Your task to perform on an android device: open a bookmark in the chrome app Image 0: 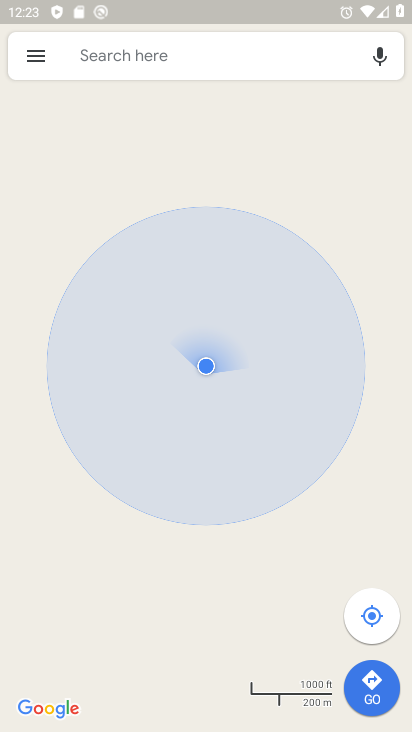
Step 0: press home button
Your task to perform on an android device: open a bookmark in the chrome app Image 1: 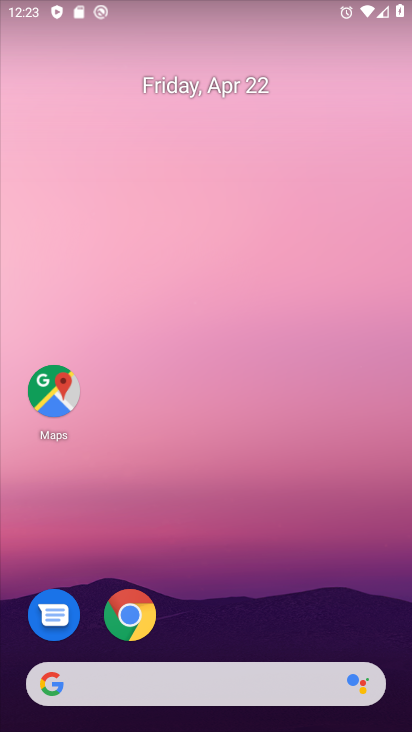
Step 1: click (129, 610)
Your task to perform on an android device: open a bookmark in the chrome app Image 2: 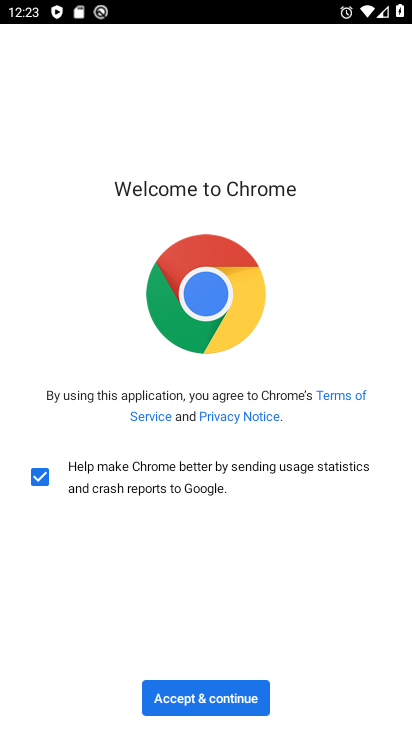
Step 2: click (218, 708)
Your task to perform on an android device: open a bookmark in the chrome app Image 3: 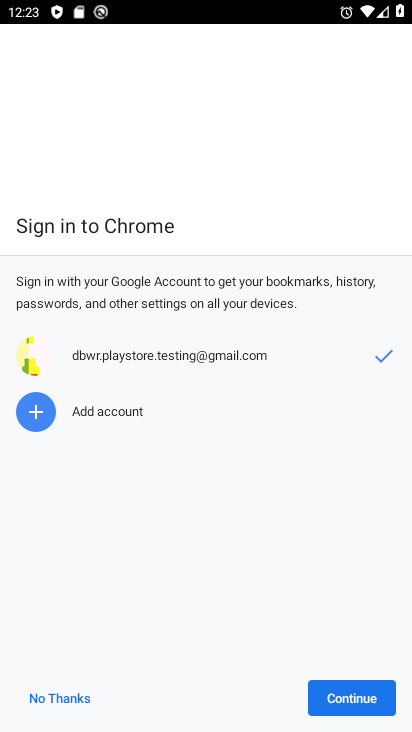
Step 3: click (350, 691)
Your task to perform on an android device: open a bookmark in the chrome app Image 4: 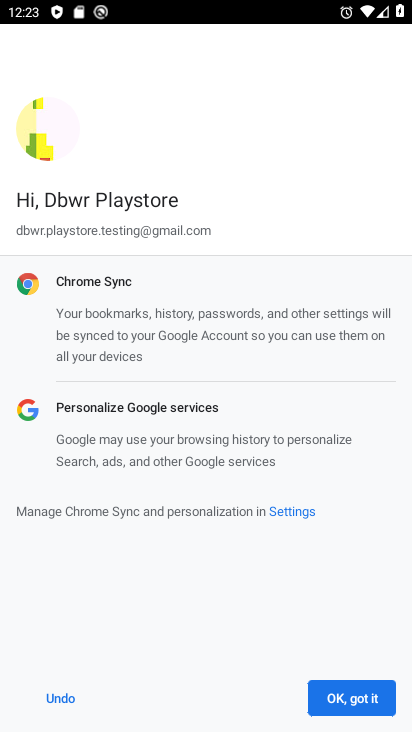
Step 4: click (339, 683)
Your task to perform on an android device: open a bookmark in the chrome app Image 5: 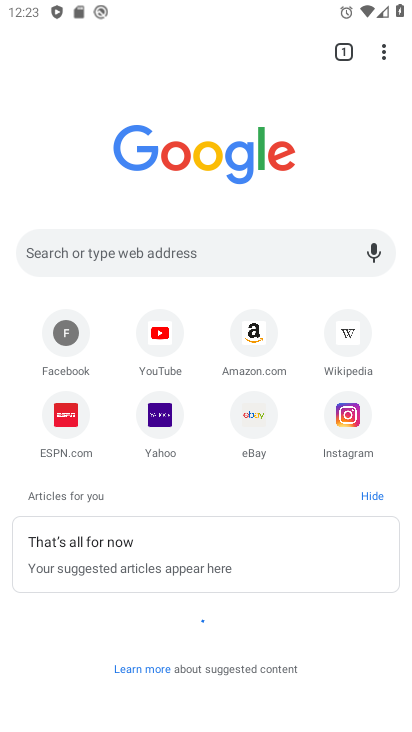
Step 5: click (383, 53)
Your task to perform on an android device: open a bookmark in the chrome app Image 6: 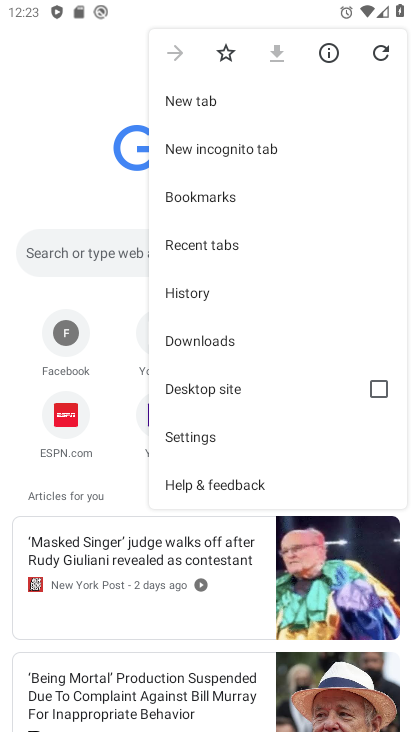
Step 6: click (257, 198)
Your task to perform on an android device: open a bookmark in the chrome app Image 7: 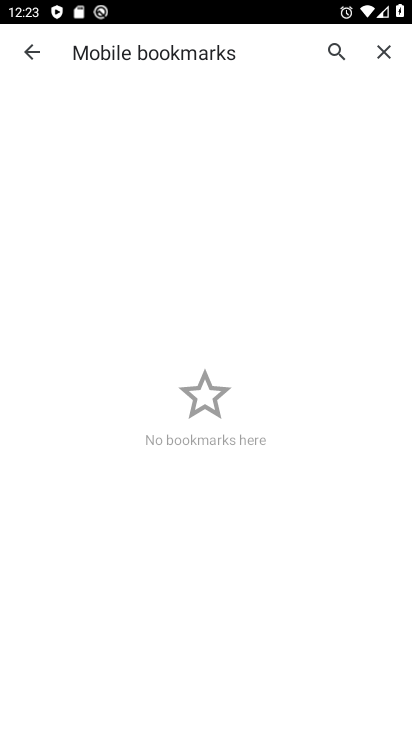
Step 7: task complete